Your task to perform on an android device: star an email in the gmail app Image 0: 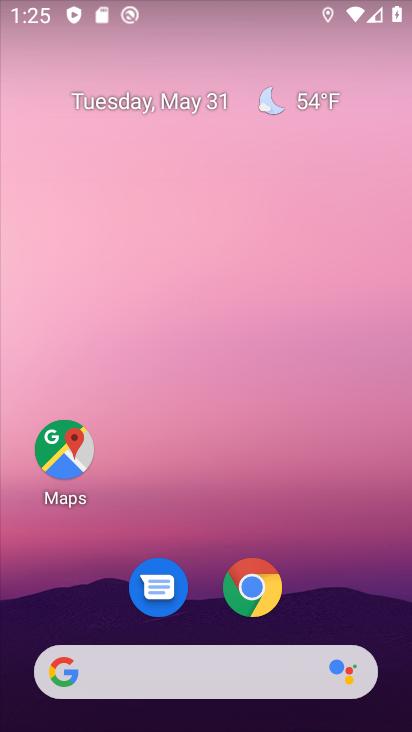
Step 0: click (402, 318)
Your task to perform on an android device: star an email in the gmail app Image 1: 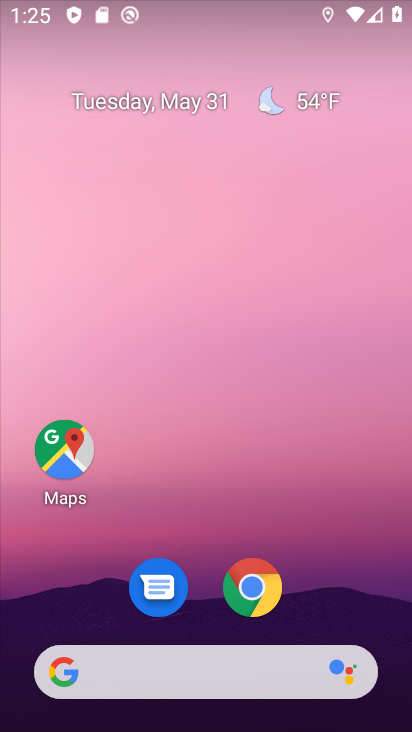
Step 1: drag from (195, 606) to (289, 57)
Your task to perform on an android device: star an email in the gmail app Image 2: 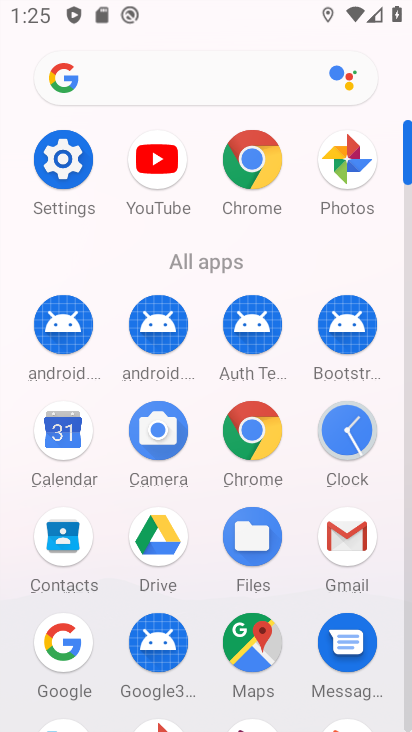
Step 2: click (334, 533)
Your task to perform on an android device: star an email in the gmail app Image 3: 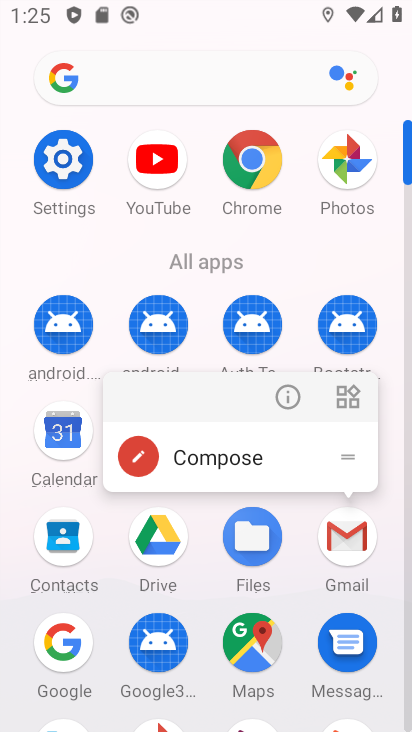
Step 3: click (285, 393)
Your task to perform on an android device: star an email in the gmail app Image 4: 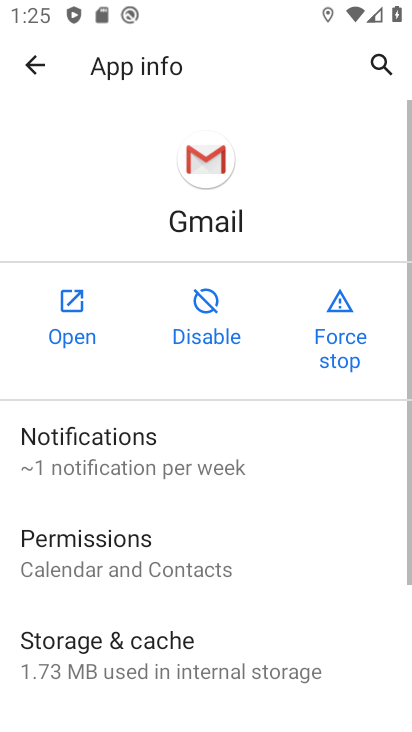
Step 4: click (81, 315)
Your task to perform on an android device: star an email in the gmail app Image 5: 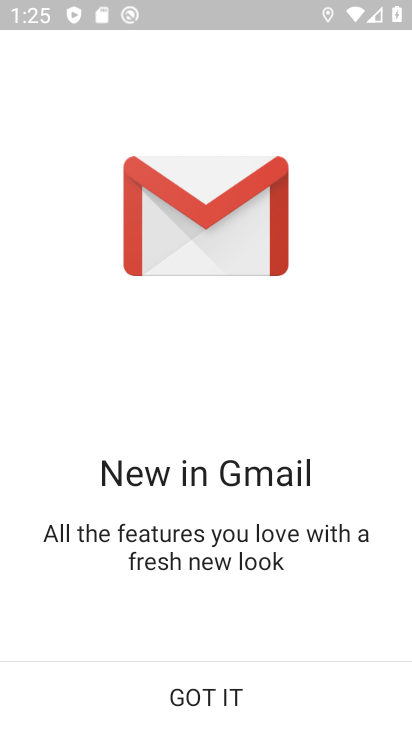
Step 5: click (208, 708)
Your task to perform on an android device: star an email in the gmail app Image 6: 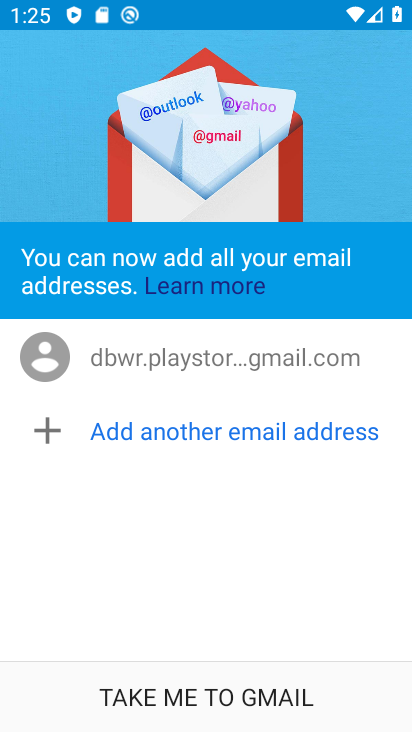
Step 6: click (153, 700)
Your task to perform on an android device: star an email in the gmail app Image 7: 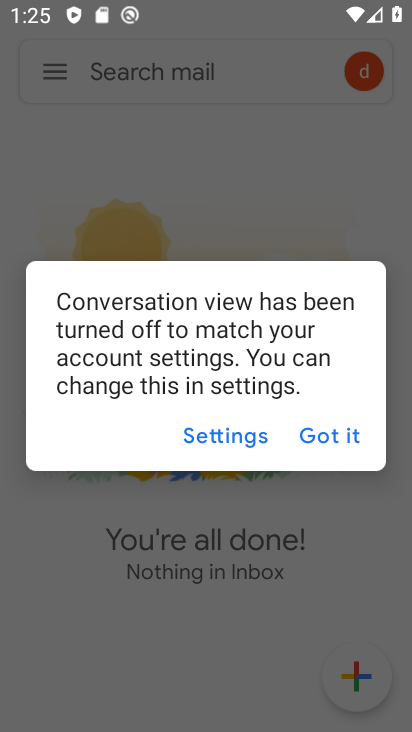
Step 7: click (334, 450)
Your task to perform on an android device: star an email in the gmail app Image 8: 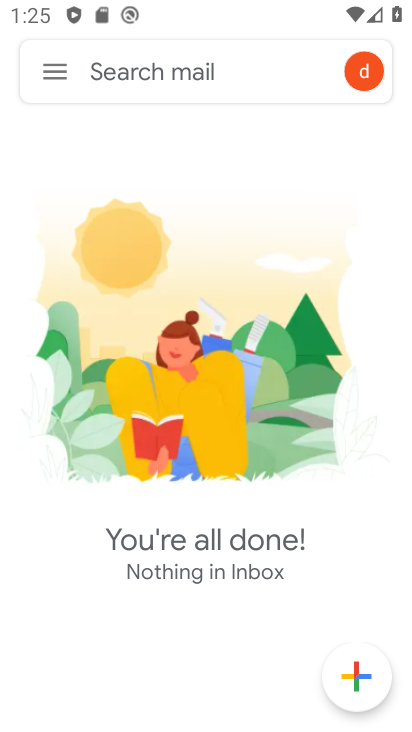
Step 8: click (42, 86)
Your task to perform on an android device: star an email in the gmail app Image 9: 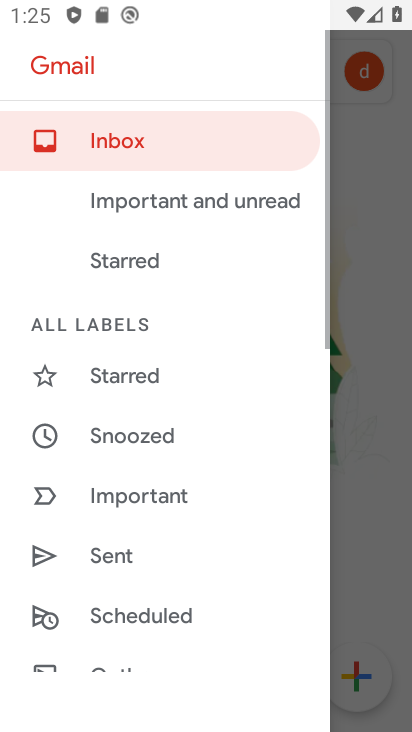
Step 9: drag from (156, 483) to (270, 72)
Your task to perform on an android device: star an email in the gmail app Image 10: 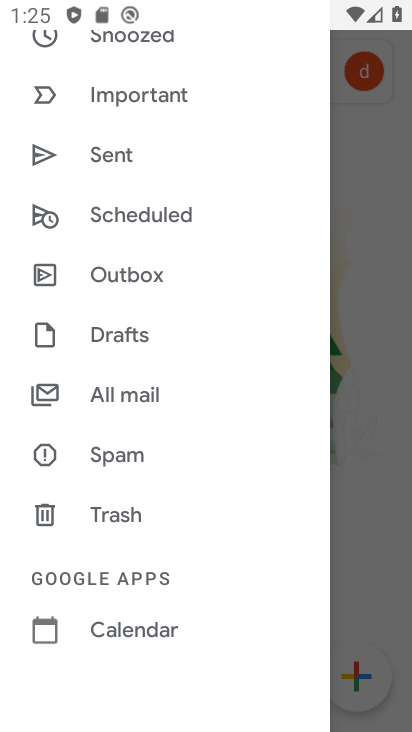
Step 10: drag from (132, 142) to (159, 660)
Your task to perform on an android device: star an email in the gmail app Image 11: 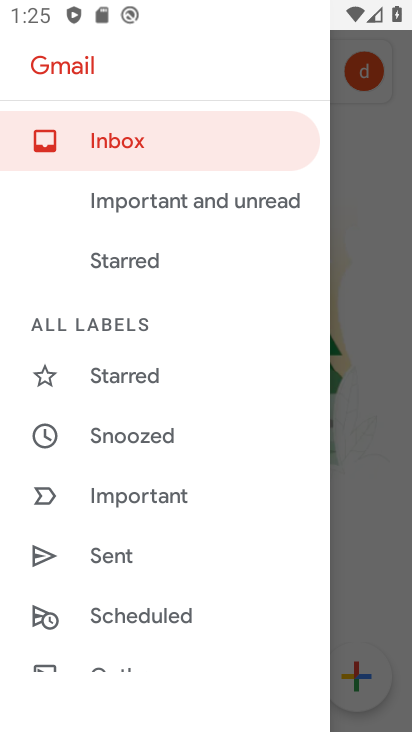
Step 11: click (122, 360)
Your task to perform on an android device: star an email in the gmail app Image 12: 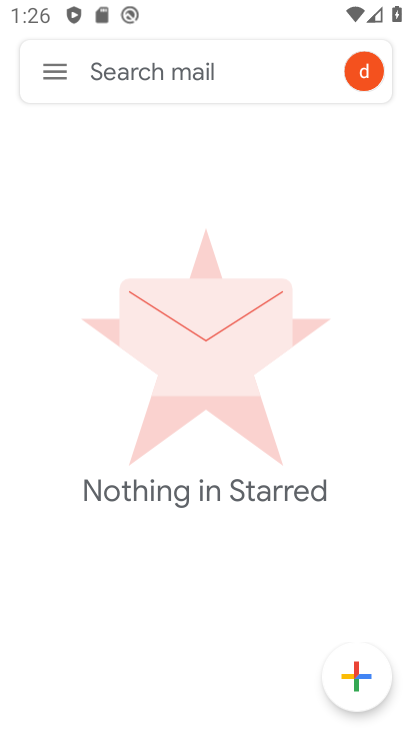
Step 12: drag from (212, 563) to (257, 345)
Your task to perform on an android device: star an email in the gmail app Image 13: 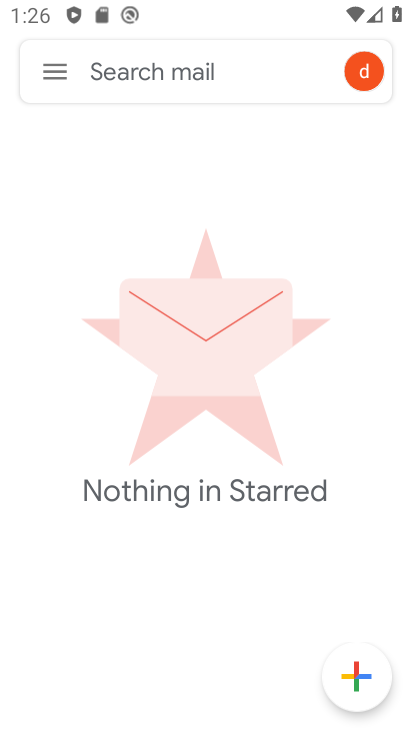
Step 13: drag from (232, 537) to (284, 267)
Your task to perform on an android device: star an email in the gmail app Image 14: 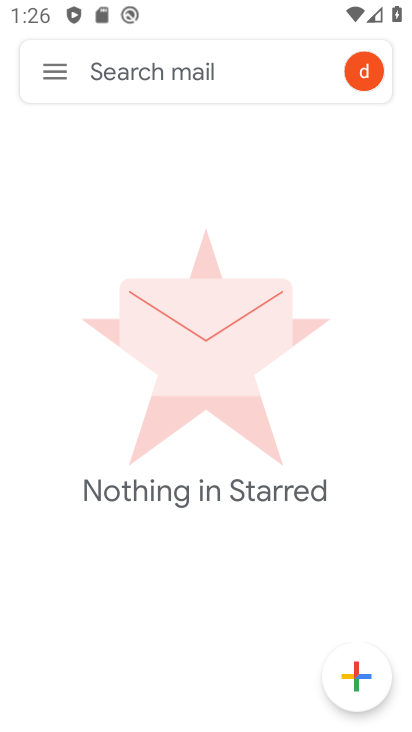
Step 14: drag from (207, 543) to (258, 257)
Your task to perform on an android device: star an email in the gmail app Image 15: 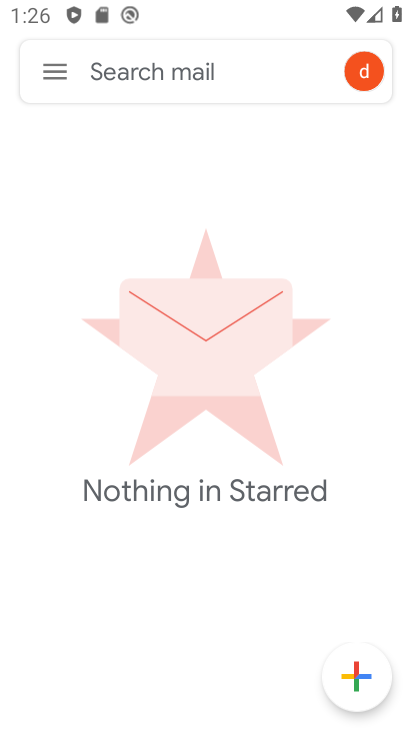
Step 15: drag from (225, 524) to (256, 349)
Your task to perform on an android device: star an email in the gmail app Image 16: 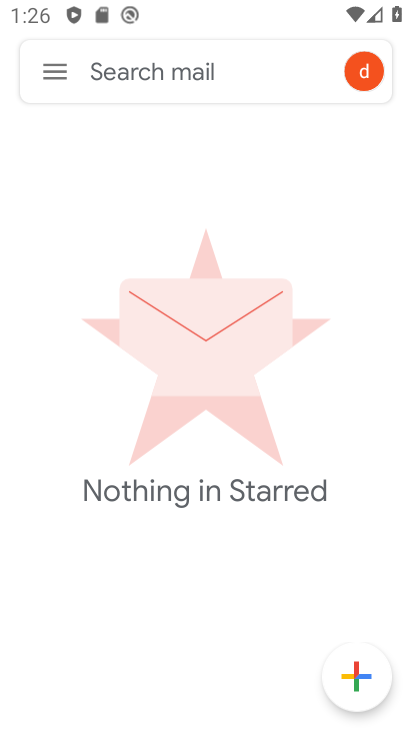
Step 16: drag from (225, 527) to (342, 341)
Your task to perform on an android device: star an email in the gmail app Image 17: 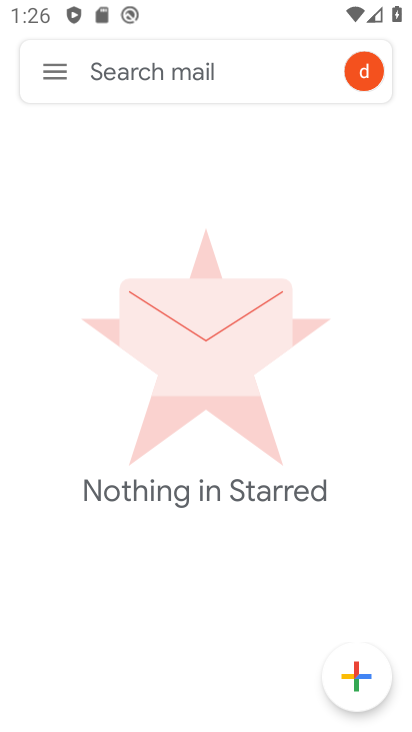
Step 17: click (52, 85)
Your task to perform on an android device: star an email in the gmail app Image 18: 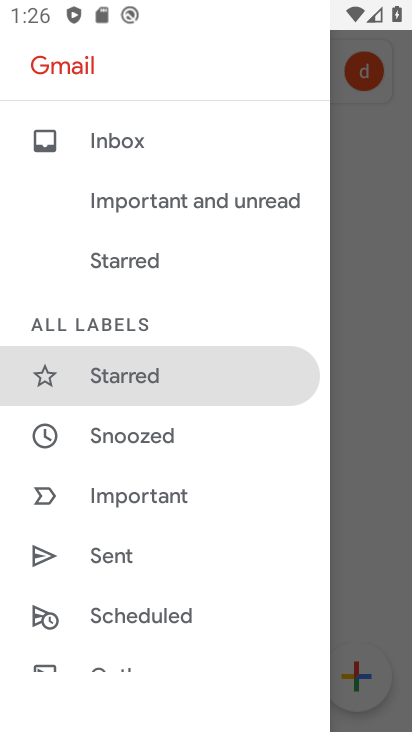
Step 18: task complete